Your task to perform on an android device: set default search engine in the chrome app Image 0: 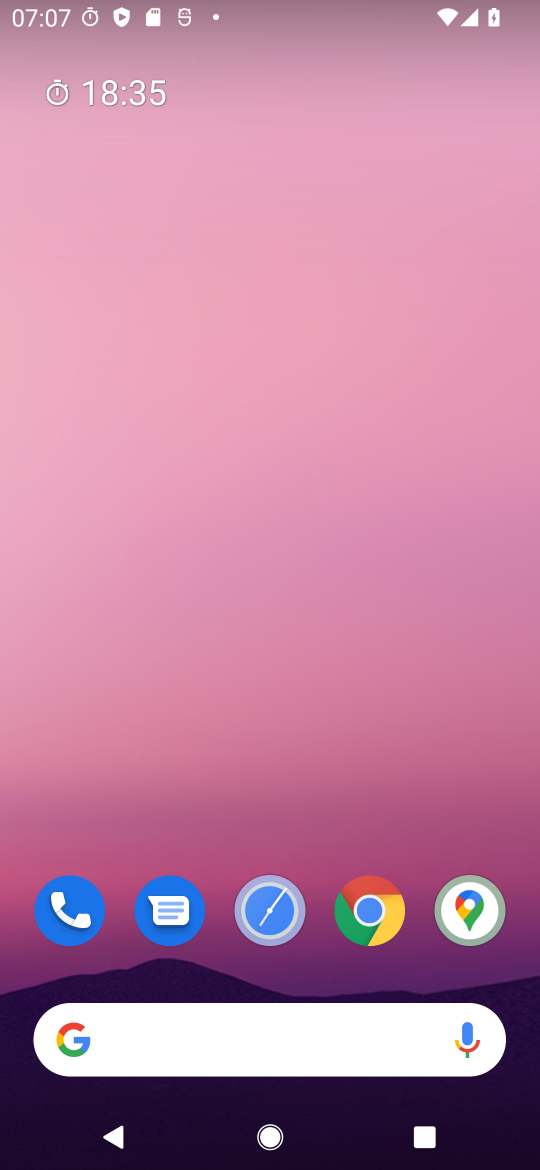
Step 0: drag from (418, 1016) to (386, 13)
Your task to perform on an android device: set default search engine in the chrome app Image 1: 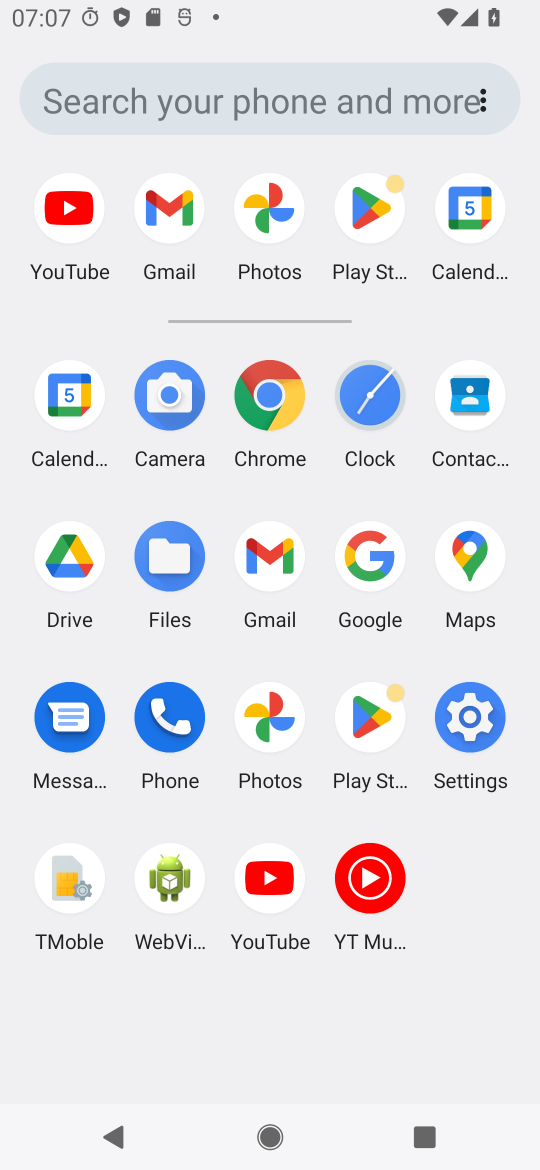
Step 1: click (271, 402)
Your task to perform on an android device: set default search engine in the chrome app Image 2: 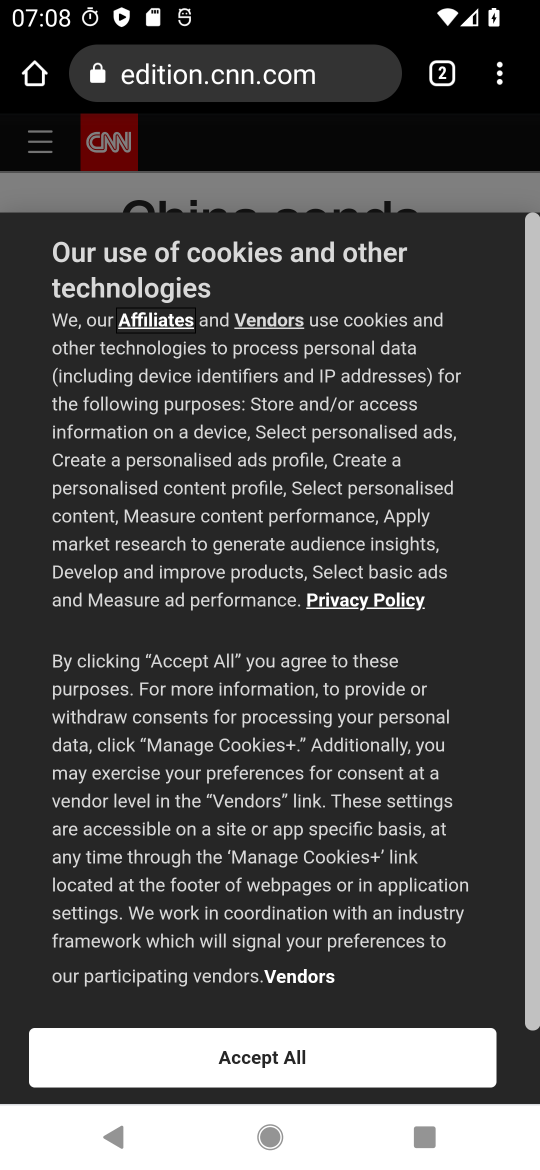
Step 2: click (486, 80)
Your task to perform on an android device: set default search engine in the chrome app Image 3: 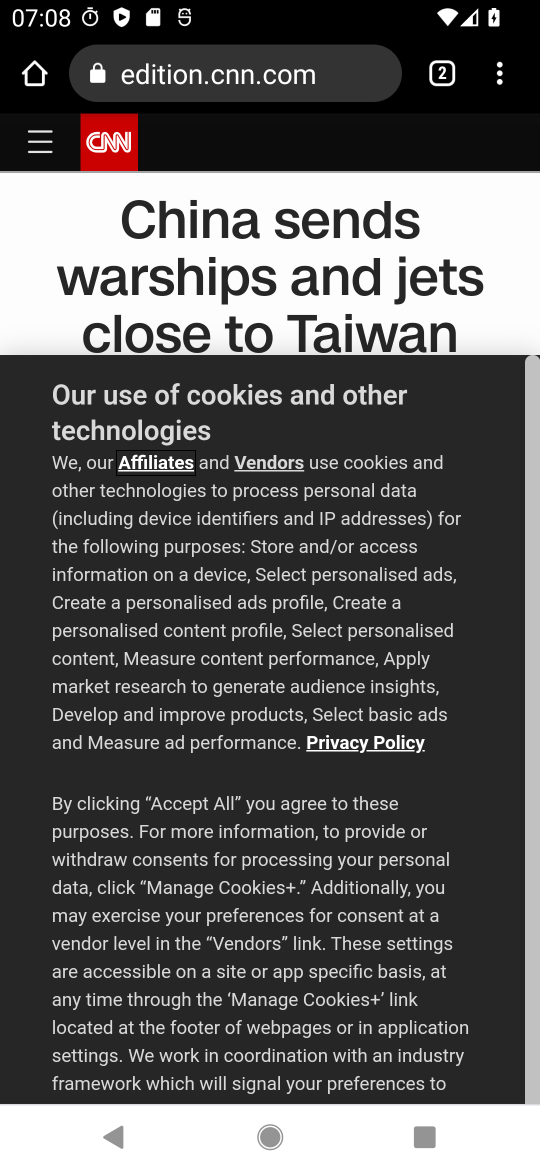
Step 3: drag from (504, 83) to (257, 937)
Your task to perform on an android device: set default search engine in the chrome app Image 4: 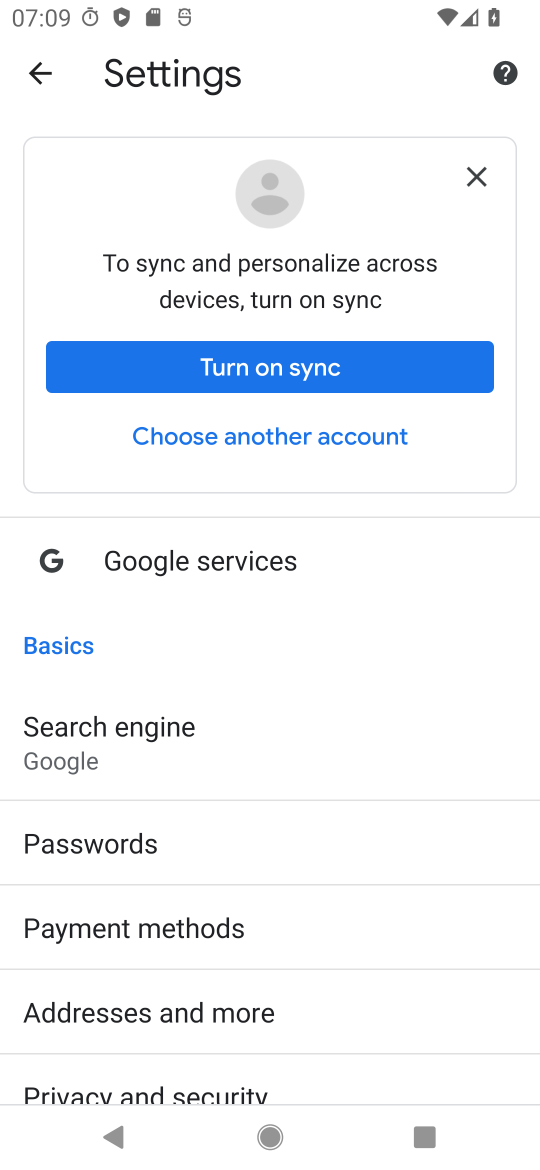
Step 4: click (161, 766)
Your task to perform on an android device: set default search engine in the chrome app Image 5: 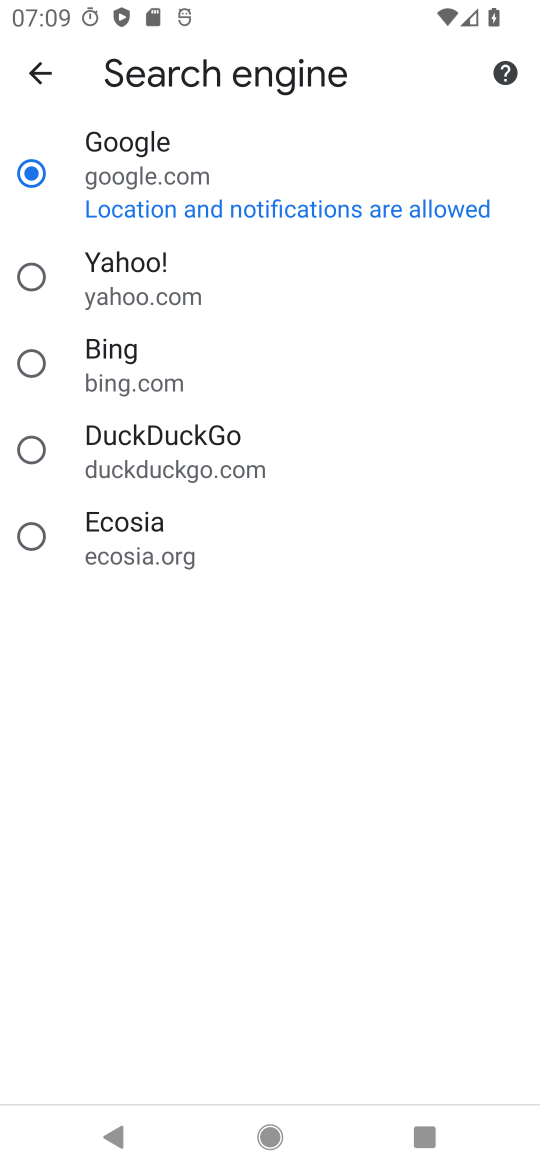
Step 5: task complete